Your task to perform on an android device: Show me recent news Image 0: 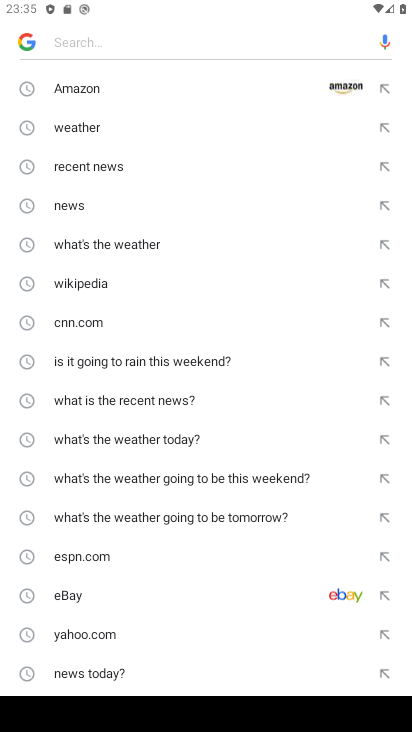
Step 0: press home button
Your task to perform on an android device: Show me recent news Image 1: 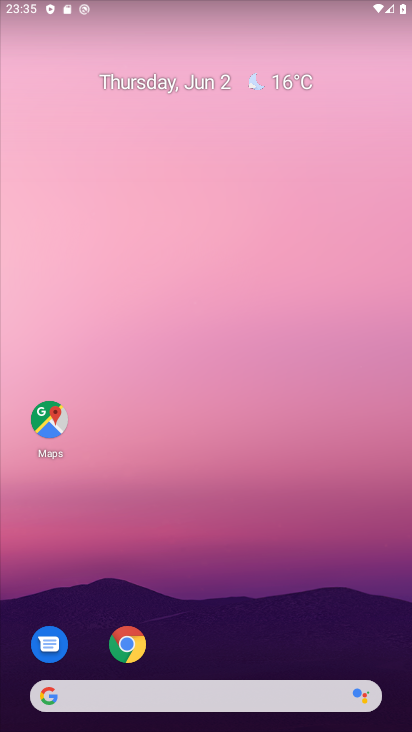
Step 1: click (117, 643)
Your task to perform on an android device: Show me recent news Image 2: 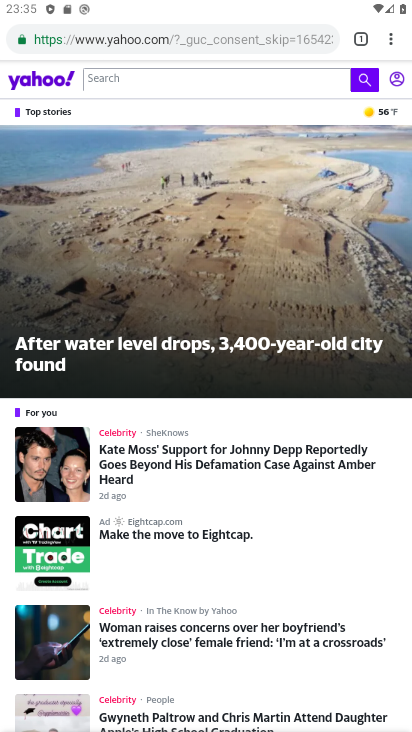
Step 2: click (83, 37)
Your task to perform on an android device: Show me recent news Image 3: 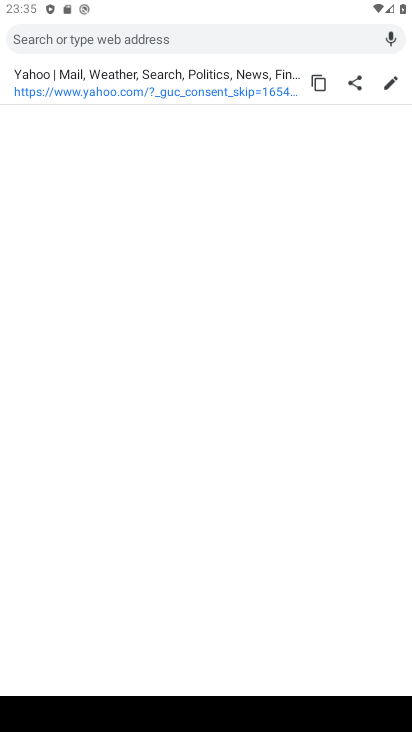
Step 3: type "Show me recent news"
Your task to perform on an android device: Show me recent news Image 4: 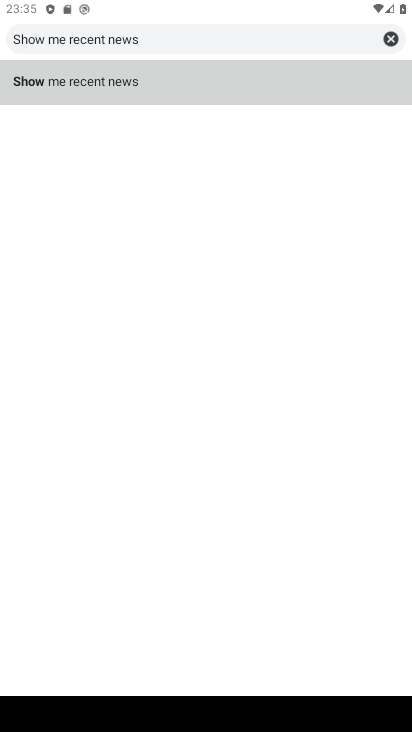
Step 4: click (97, 92)
Your task to perform on an android device: Show me recent news Image 5: 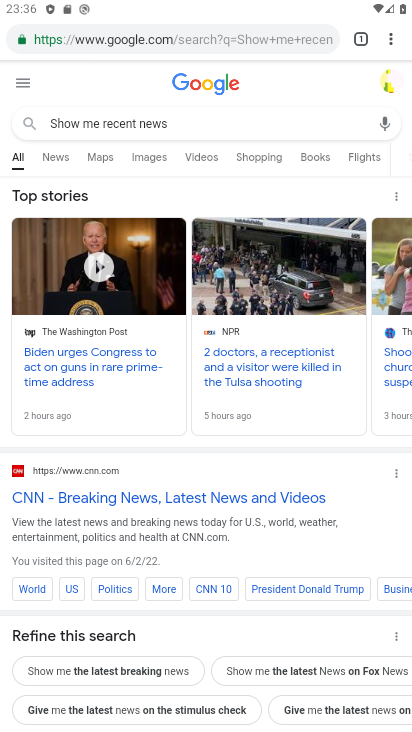
Step 5: task complete